Your task to perform on an android device: check out phone information Image 0: 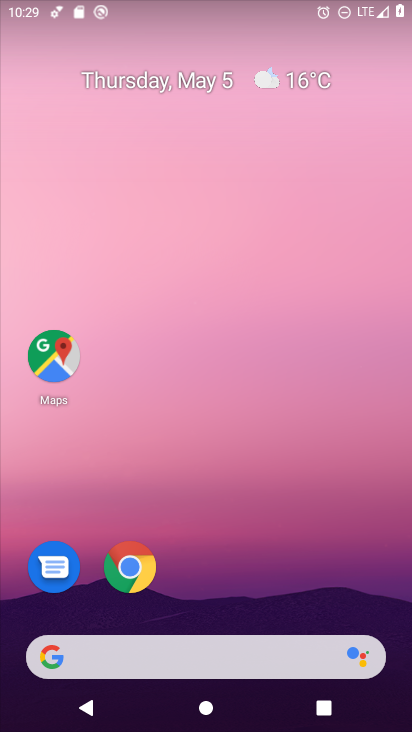
Step 0: drag from (284, 523) to (294, 52)
Your task to perform on an android device: check out phone information Image 1: 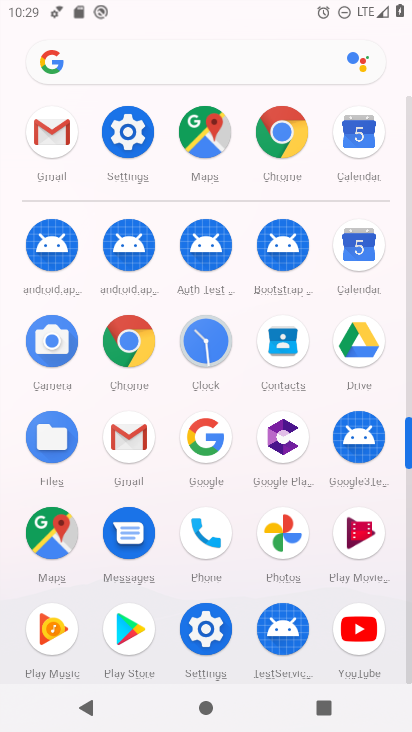
Step 1: click (208, 541)
Your task to perform on an android device: check out phone information Image 2: 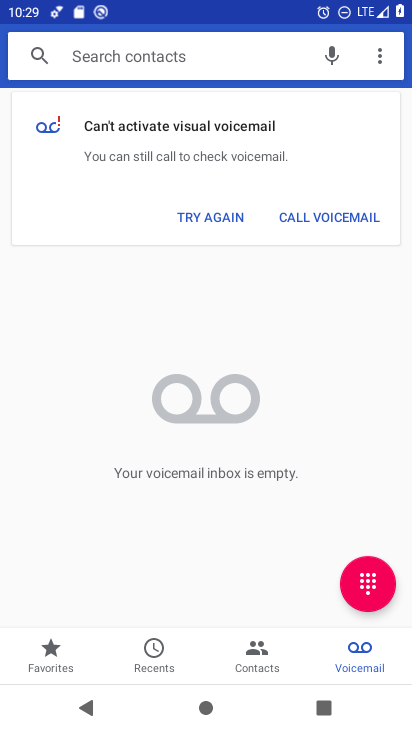
Step 2: click (378, 57)
Your task to perform on an android device: check out phone information Image 3: 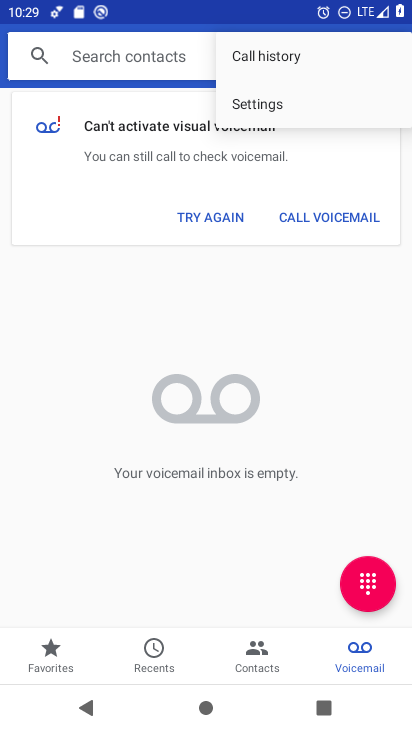
Step 3: click (335, 105)
Your task to perform on an android device: check out phone information Image 4: 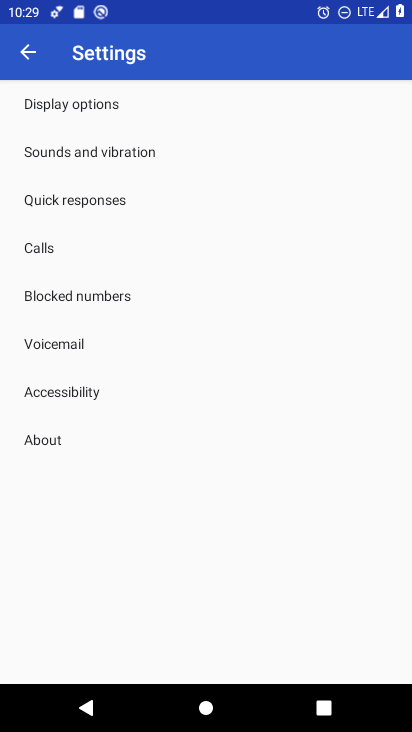
Step 4: click (50, 439)
Your task to perform on an android device: check out phone information Image 5: 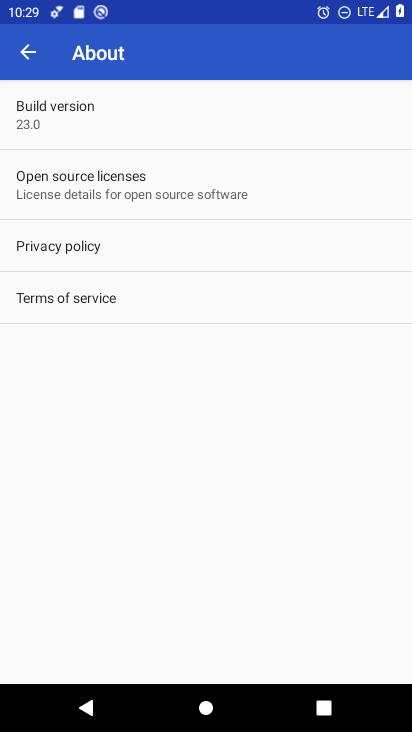
Step 5: task complete